Your task to perform on an android device: turn vacation reply on in the gmail app Image 0: 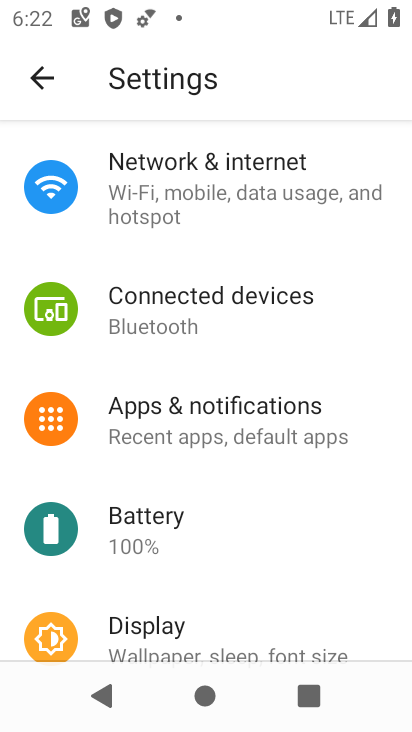
Step 0: press home button
Your task to perform on an android device: turn vacation reply on in the gmail app Image 1: 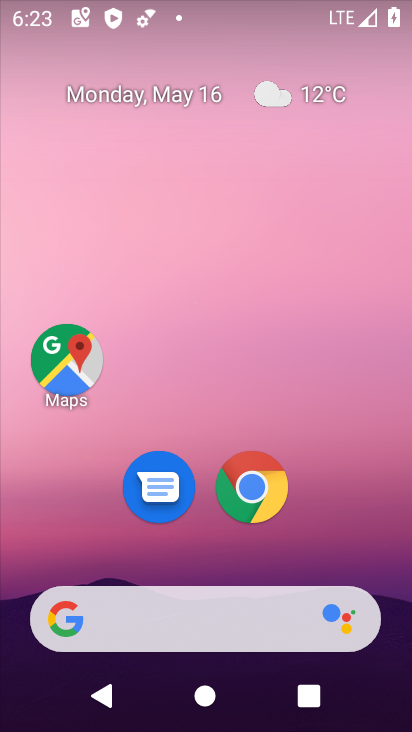
Step 1: drag from (332, 543) to (241, 3)
Your task to perform on an android device: turn vacation reply on in the gmail app Image 2: 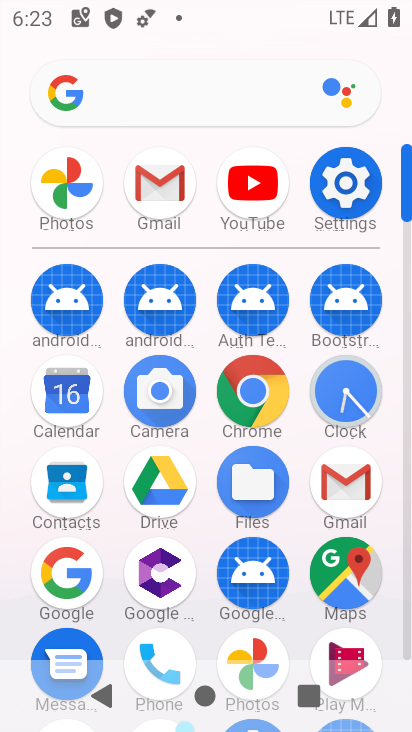
Step 2: click (152, 187)
Your task to perform on an android device: turn vacation reply on in the gmail app Image 3: 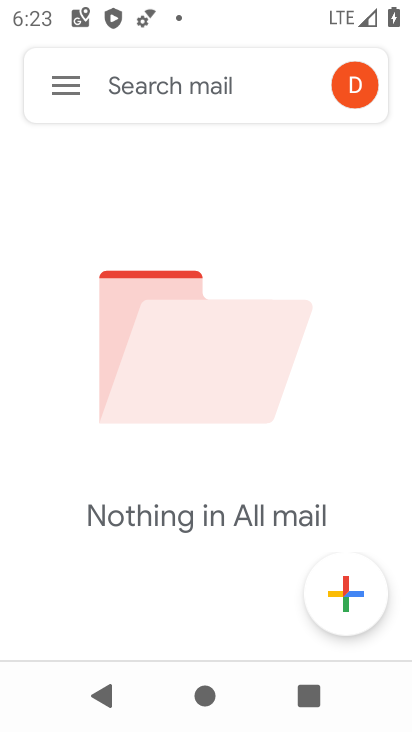
Step 3: click (58, 78)
Your task to perform on an android device: turn vacation reply on in the gmail app Image 4: 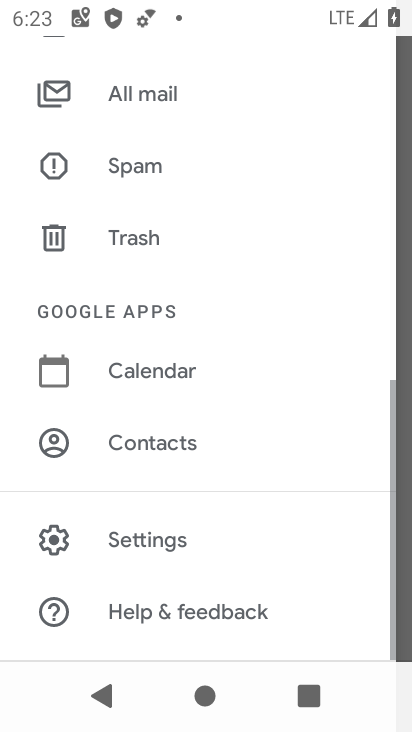
Step 4: click (164, 536)
Your task to perform on an android device: turn vacation reply on in the gmail app Image 5: 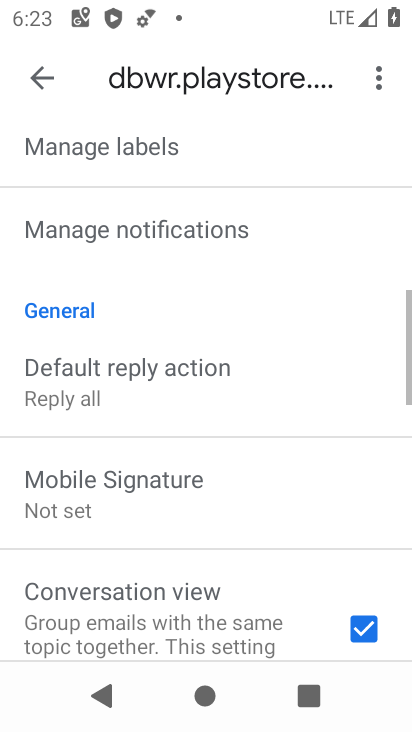
Step 5: drag from (229, 514) to (283, 0)
Your task to perform on an android device: turn vacation reply on in the gmail app Image 6: 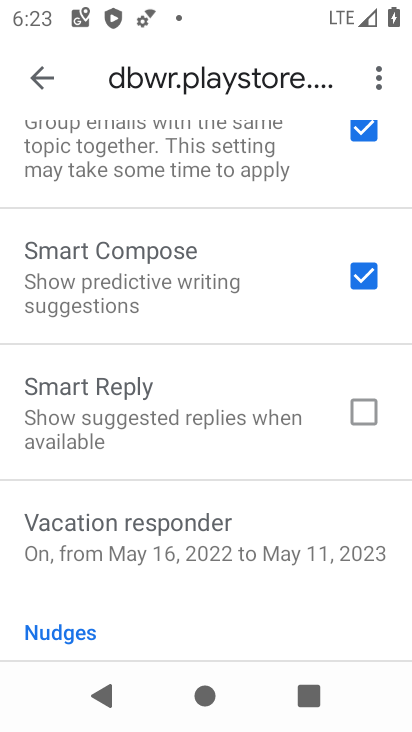
Step 6: click (192, 543)
Your task to perform on an android device: turn vacation reply on in the gmail app Image 7: 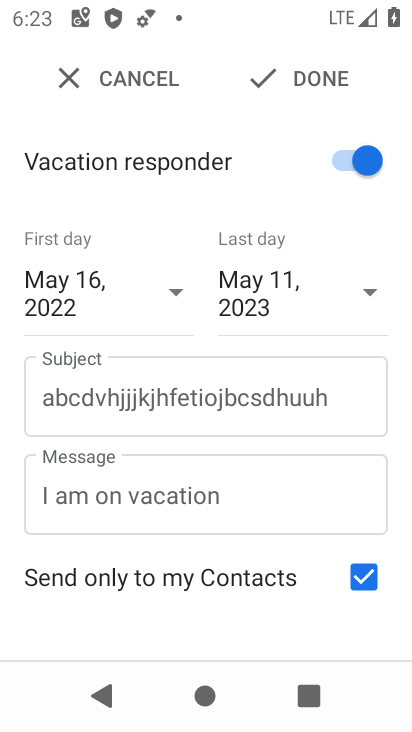
Step 7: task complete